Your task to perform on an android device: Go to Amazon Image 0: 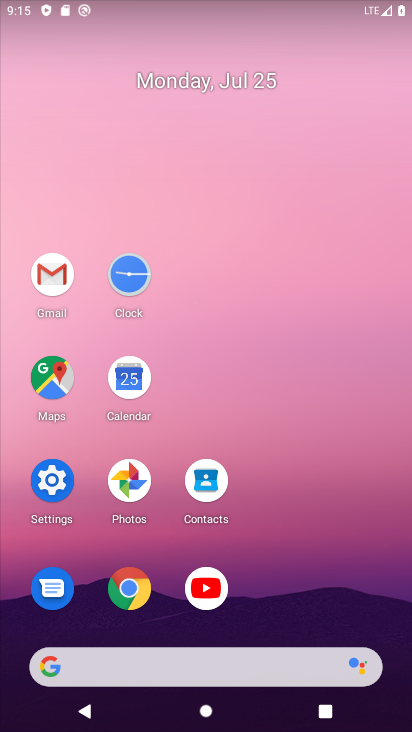
Step 0: click (120, 587)
Your task to perform on an android device: Go to Amazon Image 1: 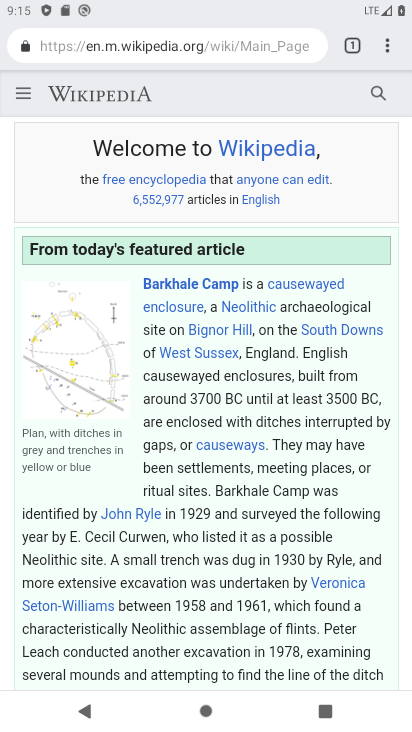
Step 1: click (390, 46)
Your task to perform on an android device: Go to Amazon Image 2: 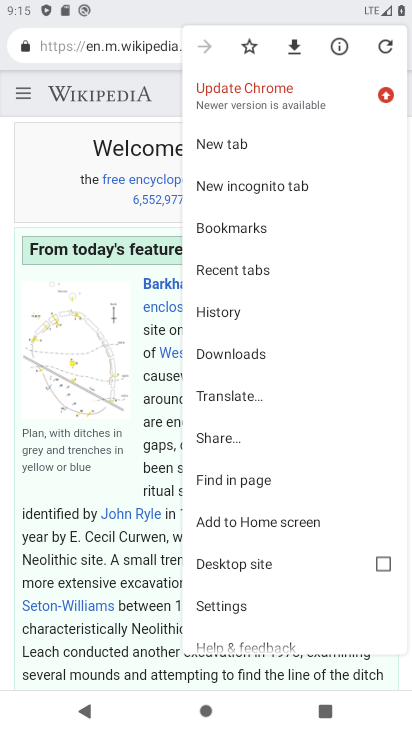
Step 2: click (220, 143)
Your task to perform on an android device: Go to Amazon Image 3: 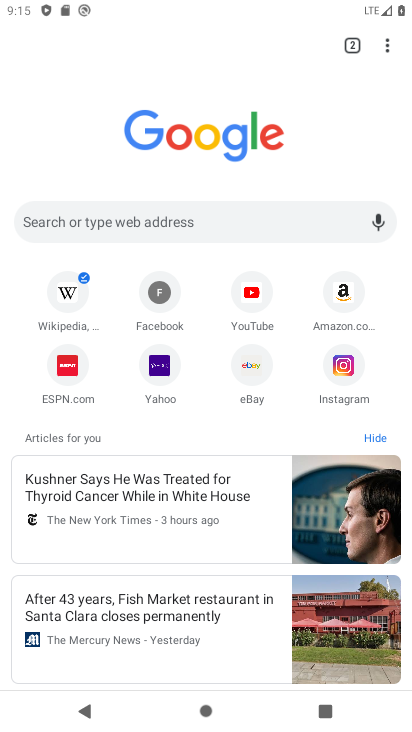
Step 3: click (338, 294)
Your task to perform on an android device: Go to Amazon Image 4: 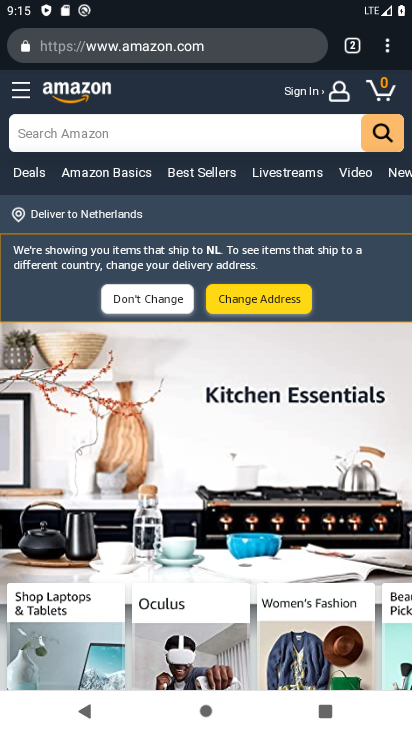
Step 4: task complete